Your task to perform on an android device: turn on javascript in the chrome app Image 0: 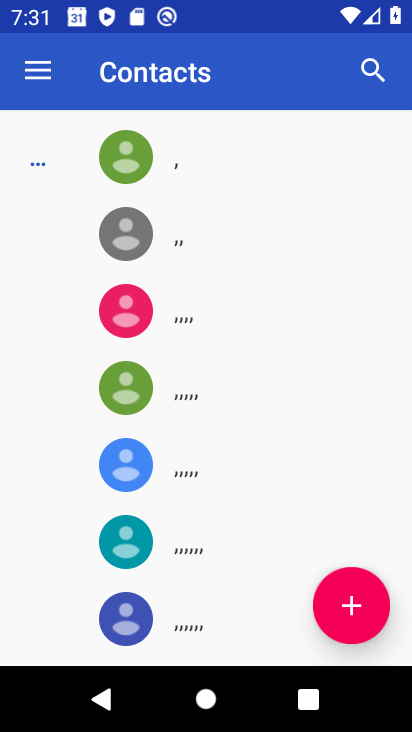
Step 0: press home button
Your task to perform on an android device: turn on javascript in the chrome app Image 1: 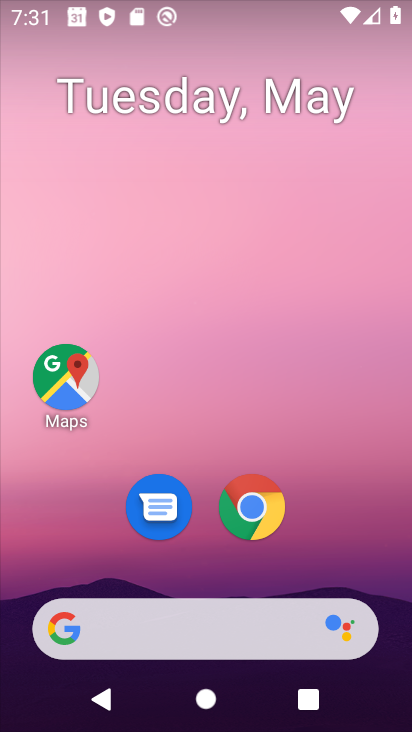
Step 1: click (244, 519)
Your task to perform on an android device: turn on javascript in the chrome app Image 2: 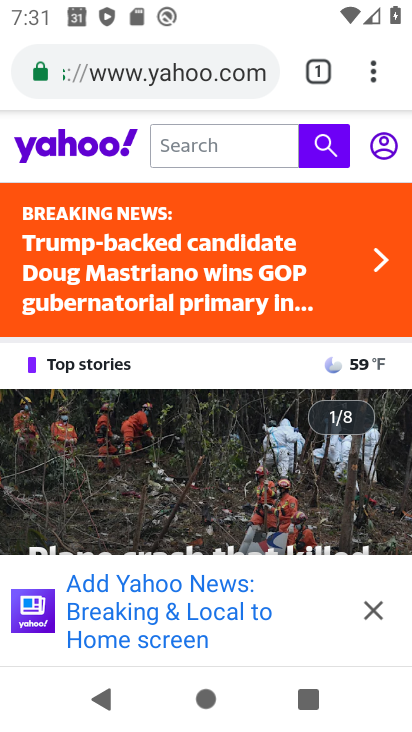
Step 2: click (363, 74)
Your task to perform on an android device: turn on javascript in the chrome app Image 3: 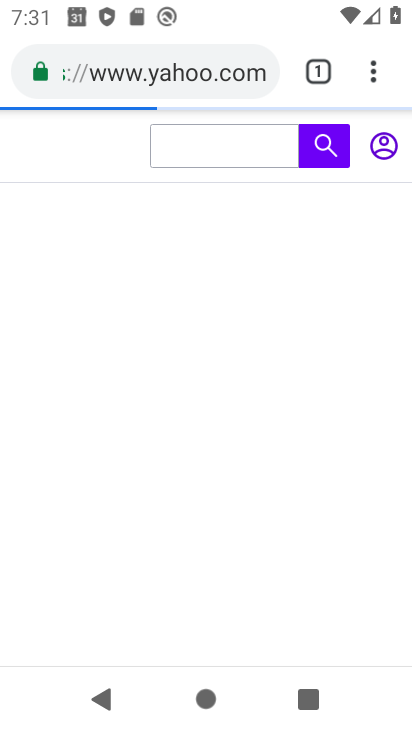
Step 3: click (361, 69)
Your task to perform on an android device: turn on javascript in the chrome app Image 4: 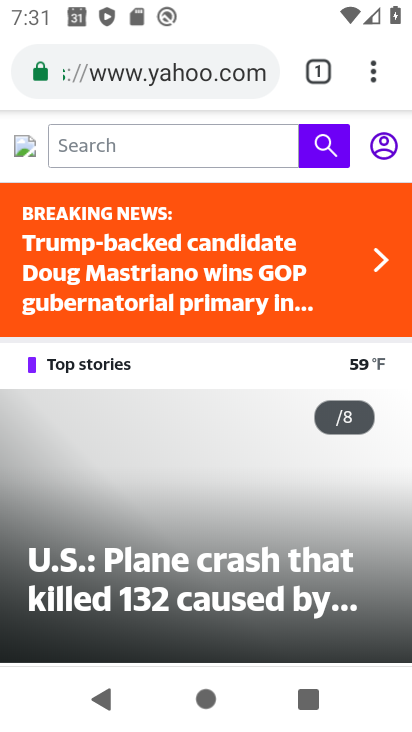
Step 4: click (365, 71)
Your task to perform on an android device: turn on javascript in the chrome app Image 5: 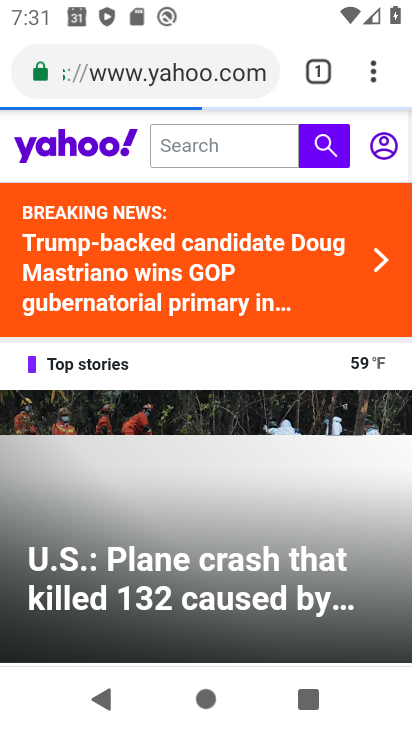
Step 5: click (366, 71)
Your task to perform on an android device: turn on javascript in the chrome app Image 6: 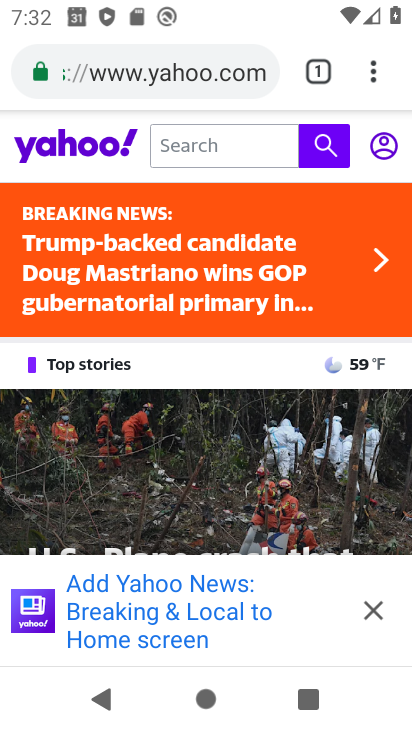
Step 6: click (368, 61)
Your task to perform on an android device: turn on javascript in the chrome app Image 7: 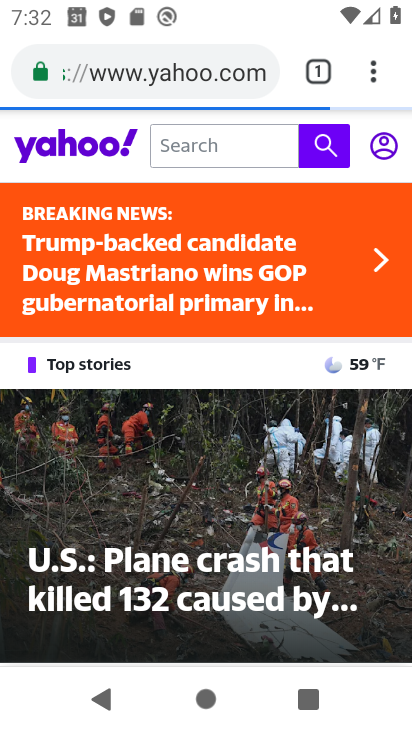
Step 7: click (366, 79)
Your task to perform on an android device: turn on javascript in the chrome app Image 8: 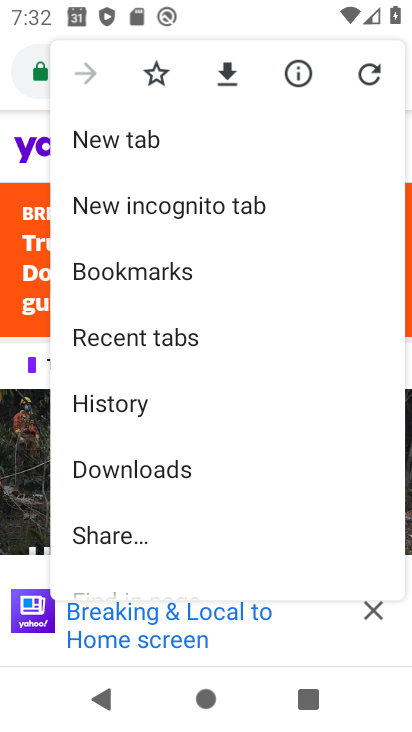
Step 8: drag from (286, 547) to (339, 277)
Your task to perform on an android device: turn on javascript in the chrome app Image 9: 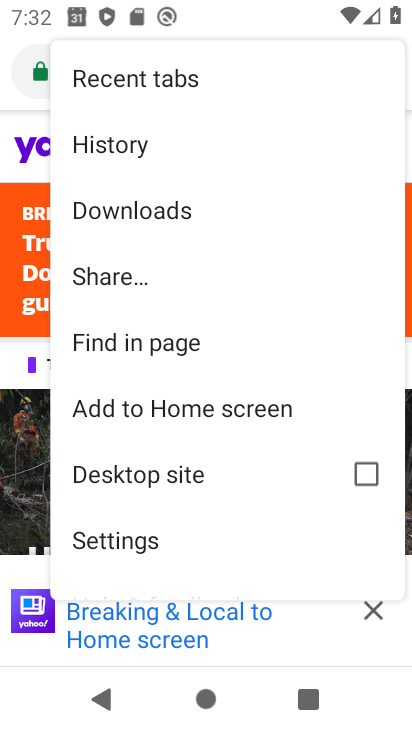
Step 9: click (224, 538)
Your task to perform on an android device: turn on javascript in the chrome app Image 10: 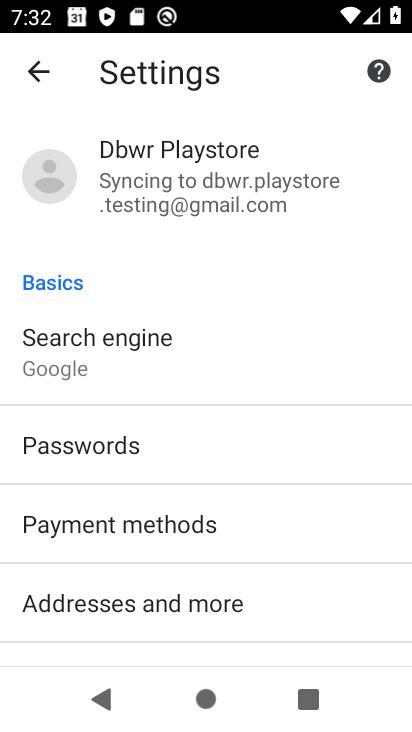
Step 10: drag from (208, 586) to (197, 383)
Your task to perform on an android device: turn on javascript in the chrome app Image 11: 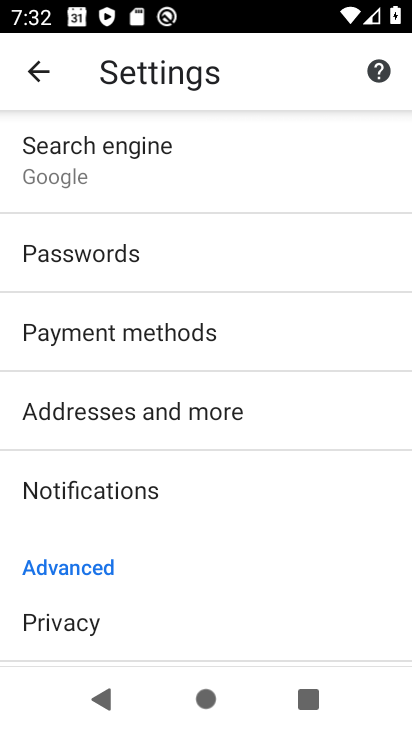
Step 11: drag from (191, 589) to (185, 379)
Your task to perform on an android device: turn on javascript in the chrome app Image 12: 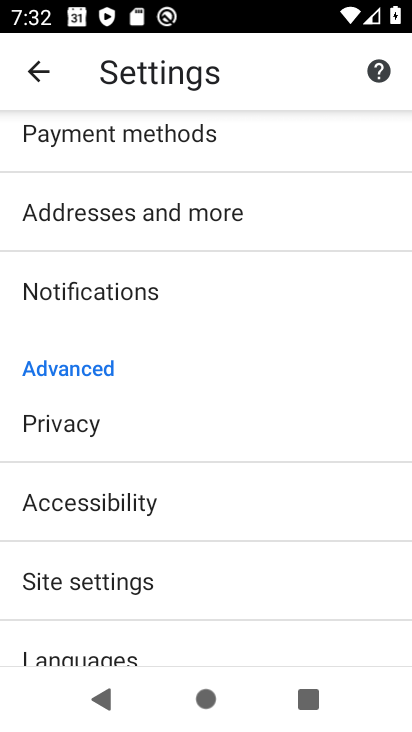
Step 12: click (193, 593)
Your task to perform on an android device: turn on javascript in the chrome app Image 13: 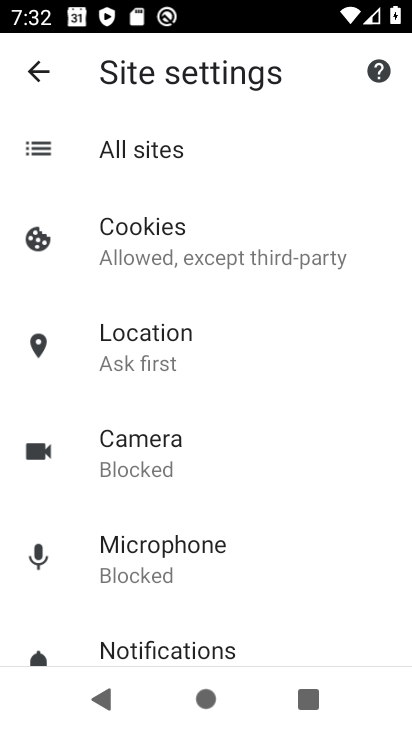
Step 13: drag from (184, 589) to (167, 448)
Your task to perform on an android device: turn on javascript in the chrome app Image 14: 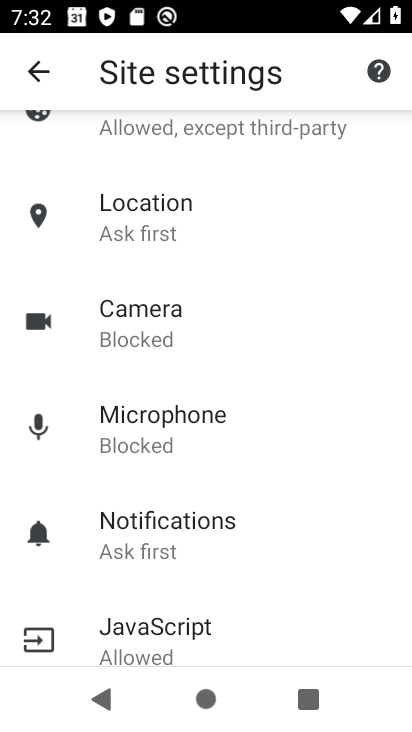
Step 14: click (168, 634)
Your task to perform on an android device: turn on javascript in the chrome app Image 15: 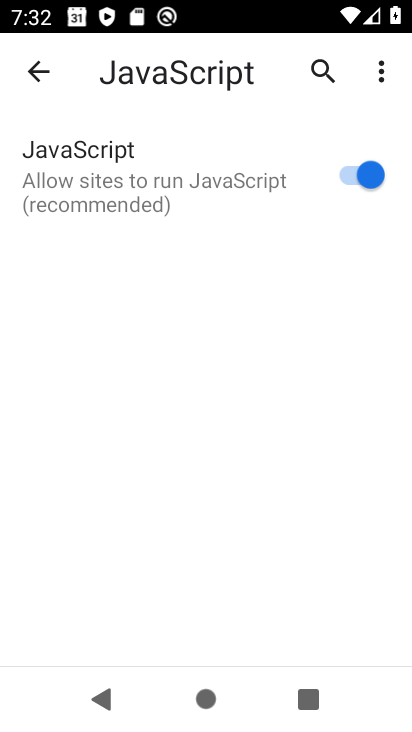
Step 15: task complete